Your task to perform on an android device: Search for pizza restaurants on Maps Image 0: 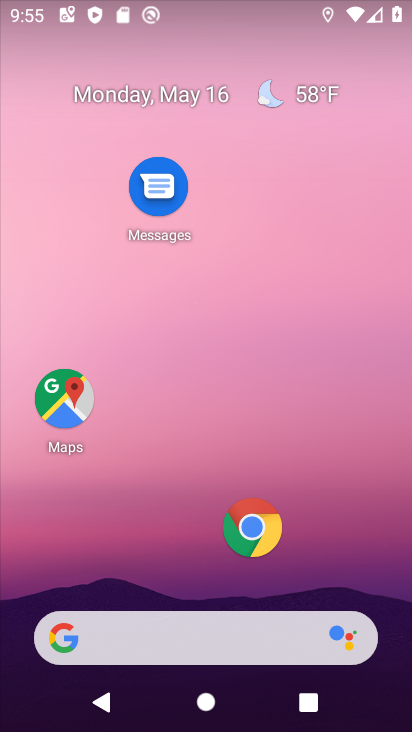
Step 0: click (74, 405)
Your task to perform on an android device: Search for pizza restaurants on Maps Image 1: 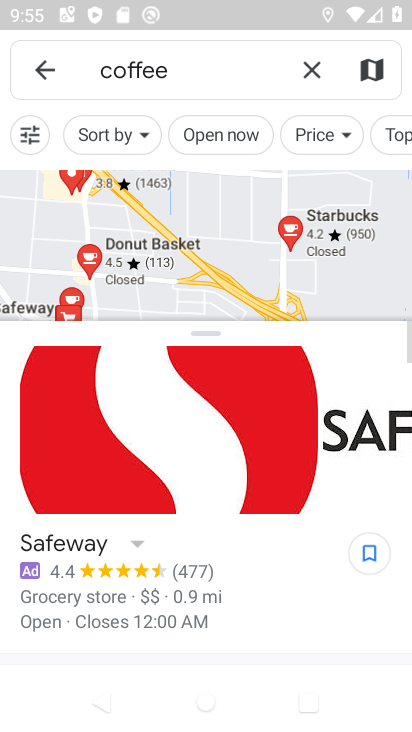
Step 1: click (309, 74)
Your task to perform on an android device: Search for pizza restaurants on Maps Image 2: 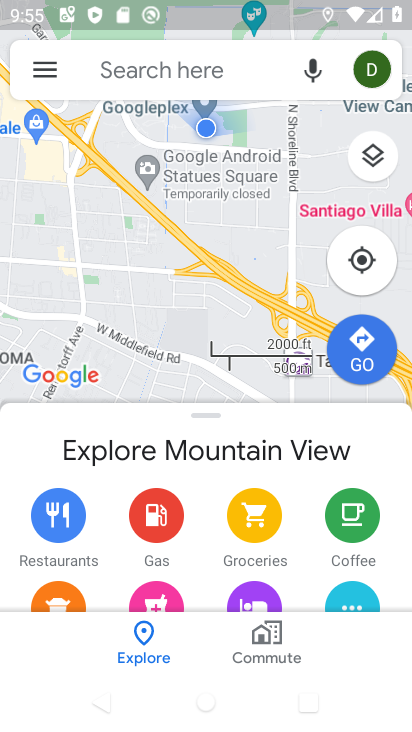
Step 2: click (237, 70)
Your task to perform on an android device: Search for pizza restaurants on Maps Image 3: 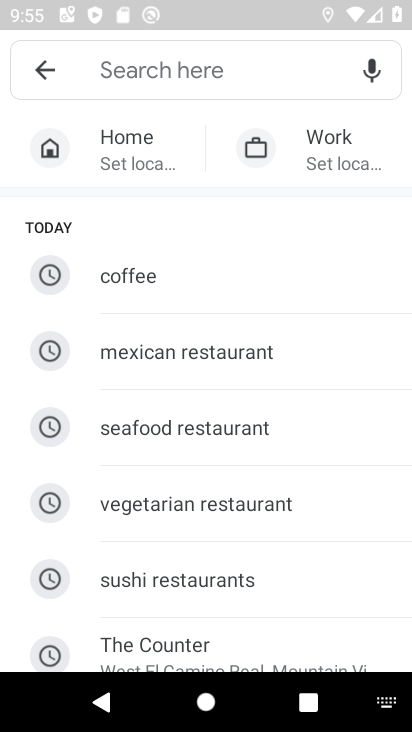
Step 3: drag from (276, 576) to (266, 376)
Your task to perform on an android device: Search for pizza restaurants on Maps Image 4: 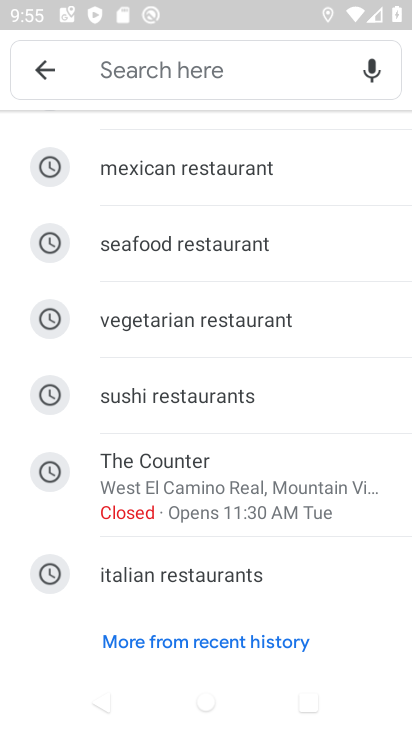
Step 4: click (203, 73)
Your task to perform on an android device: Search for pizza restaurants on Maps Image 5: 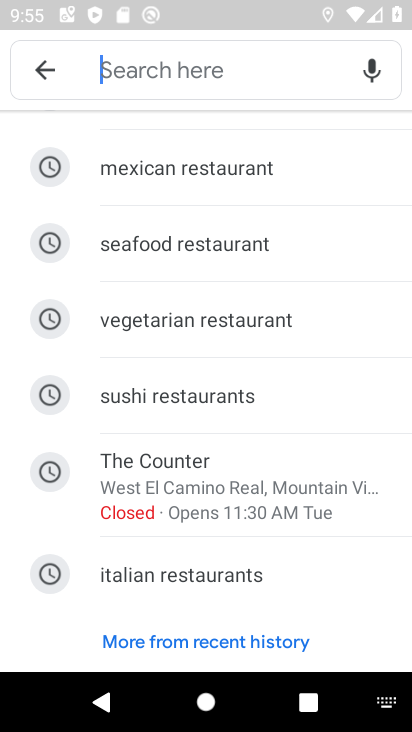
Step 5: type "pizza restaurent"
Your task to perform on an android device: Search for pizza restaurants on Maps Image 6: 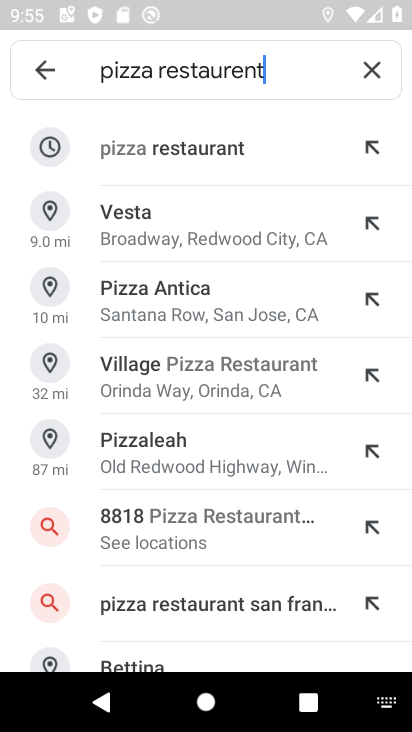
Step 6: click (188, 137)
Your task to perform on an android device: Search for pizza restaurants on Maps Image 7: 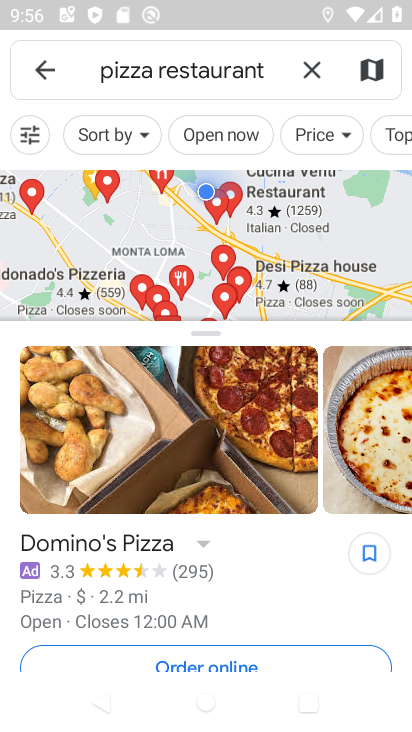
Step 7: task complete